Your task to perform on an android device: turn off improve location accuracy Image 0: 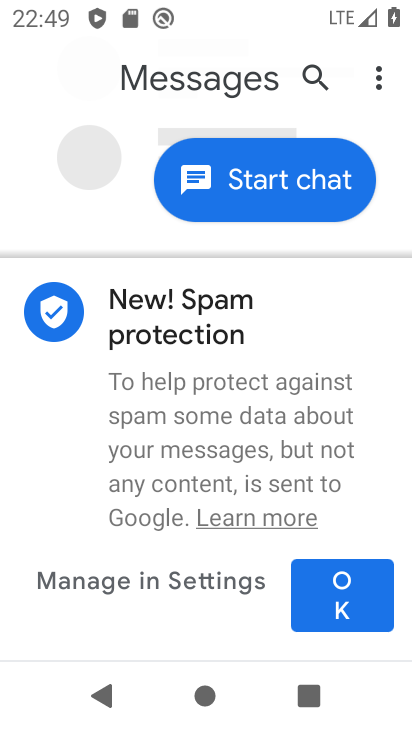
Step 0: press home button
Your task to perform on an android device: turn off improve location accuracy Image 1: 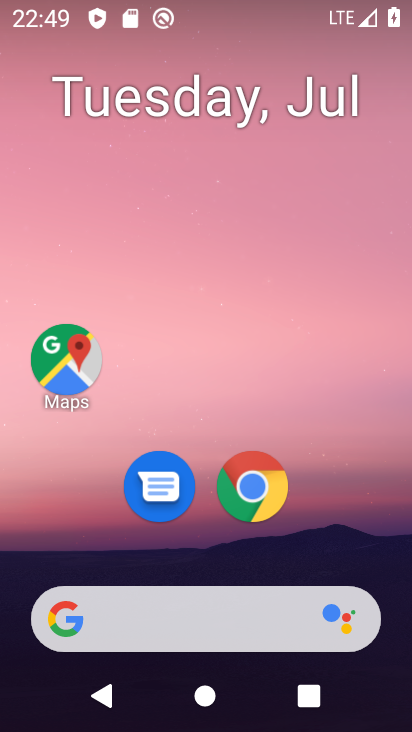
Step 1: drag from (346, 535) to (355, 177)
Your task to perform on an android device: turn off improve location accuracy Image 2: 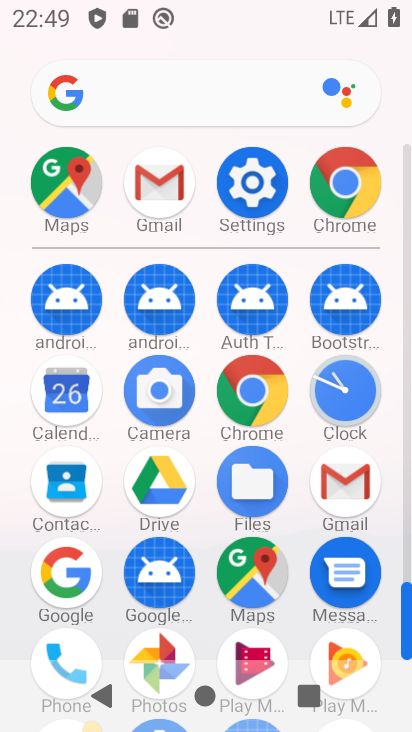
Step 2: click (255, 199)
Your task to perform on an android device: turn off improve location accuracy Image 3: 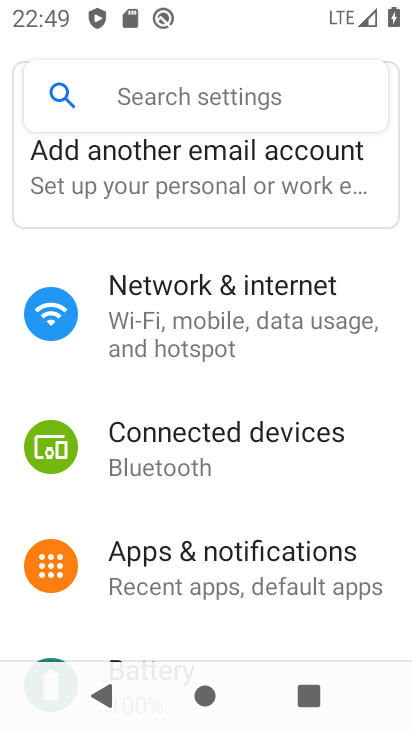
Step 3: drag from (334, 474) to (340, 362)
Your task to perform on an android device: turn off improve location accuracy Image 4: 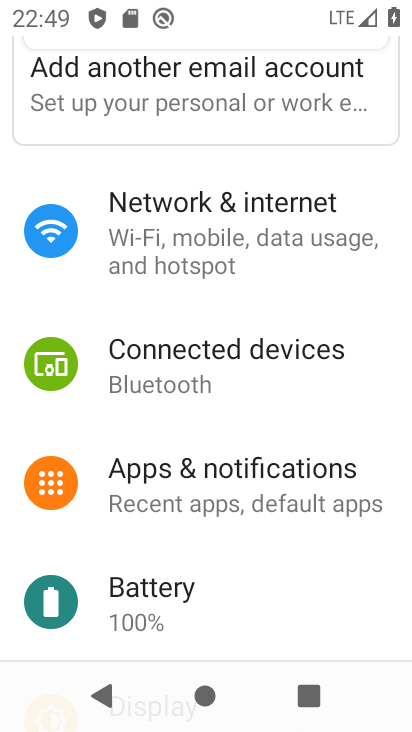
Step 4: drag from (329, 495) to (329, 353)
Your task to perform on an android device: turn off improve location accuracy Image 5: 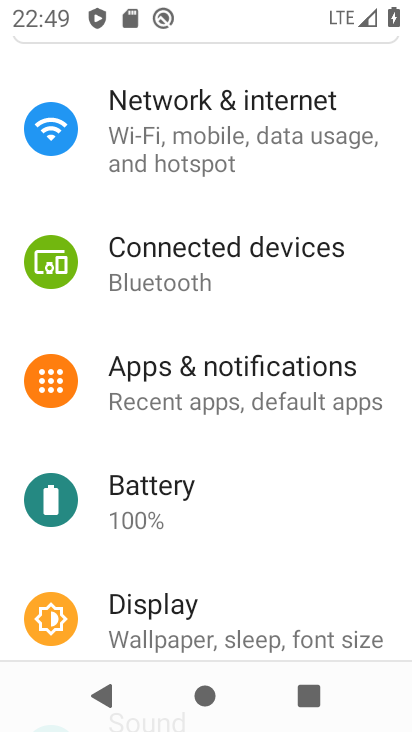
Step 5: drag from (321, 543) to (313, 389)
Your task to perform on an android device: turn off improve location accuracy Image 6: 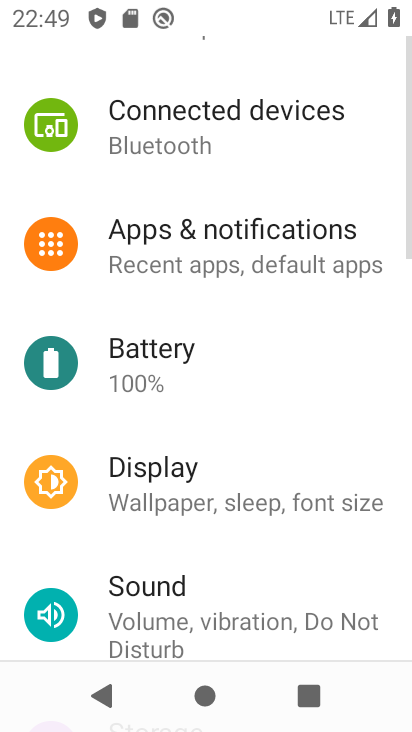
Step 6: drag from (301, 565) to (300, 236)
Your task to perform on an android device: turn off improve location accuracy Image 7: 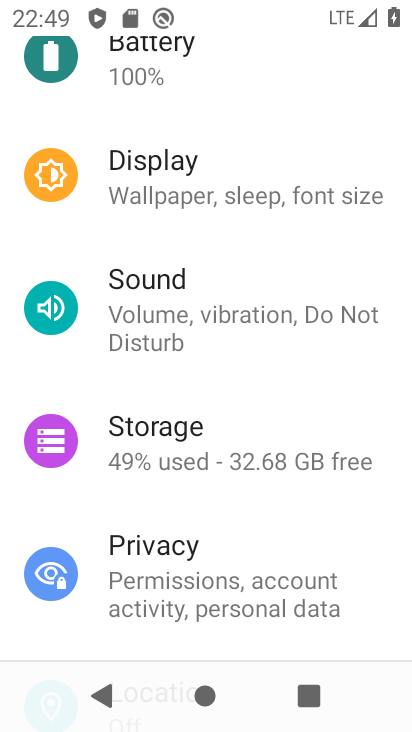
Step 7: drag from (283, 527) to (281, 354)
Your task to perform on an android device: turn off improve location accuracy Image 8: 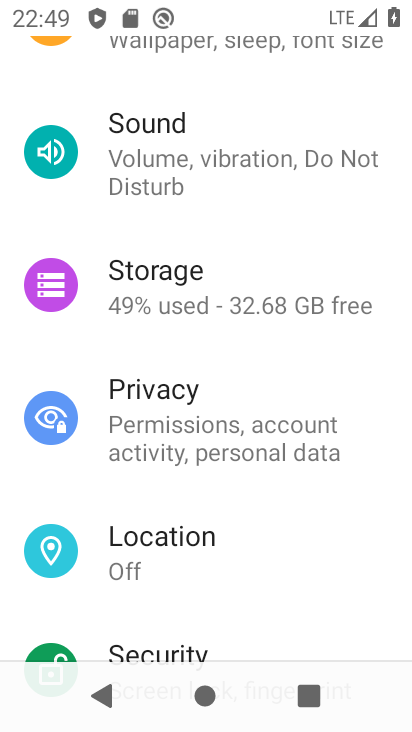
Step 8: click (244, 571)
Your task to perform on an android device: turn off improve location accuracy Image 9: 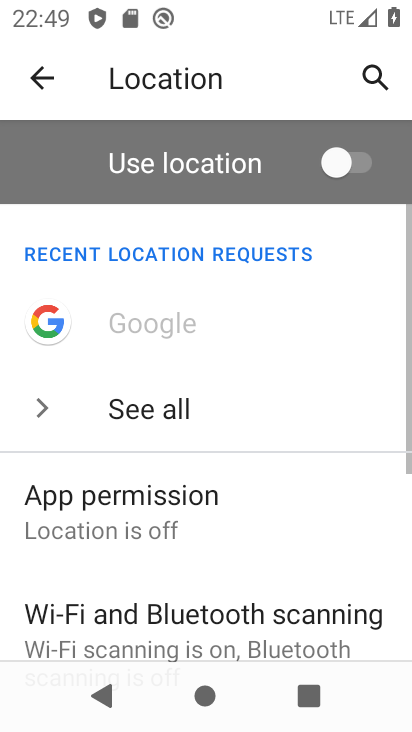
Step 9: drag from (244, 571) to (240, 487)
Your task to perform on an android device: turn off improve location accuracy Image 10: 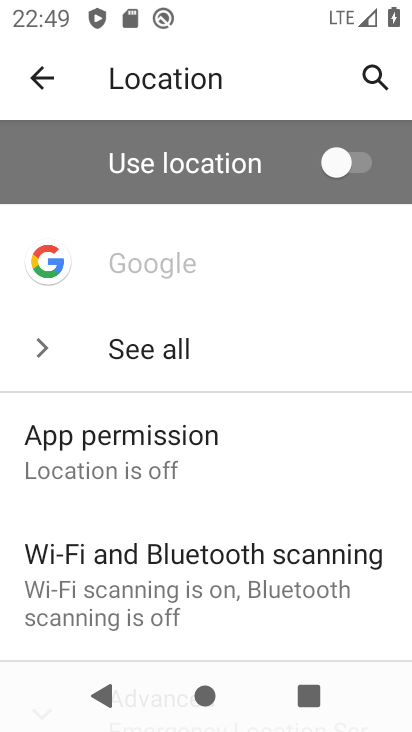
Step 10: drag from (240, 583) to (238, 517)
Your task to perform on an android device: turn off improve location accuracy Image 11: 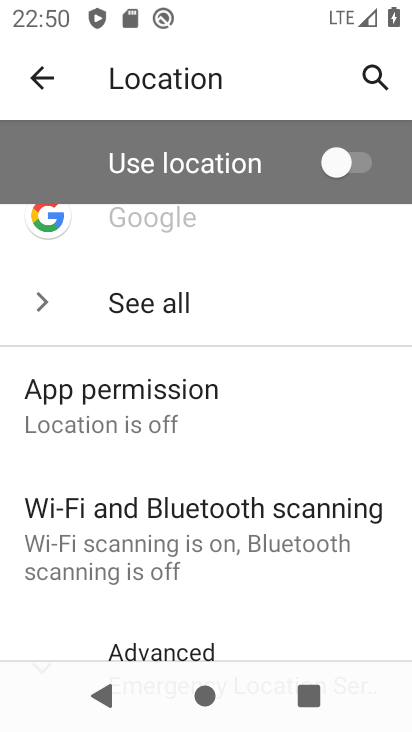
Step 11: drag from (251, 599) to (251, 490)
Your task to perform on an android device: turn off improve location accuracy Image 12: 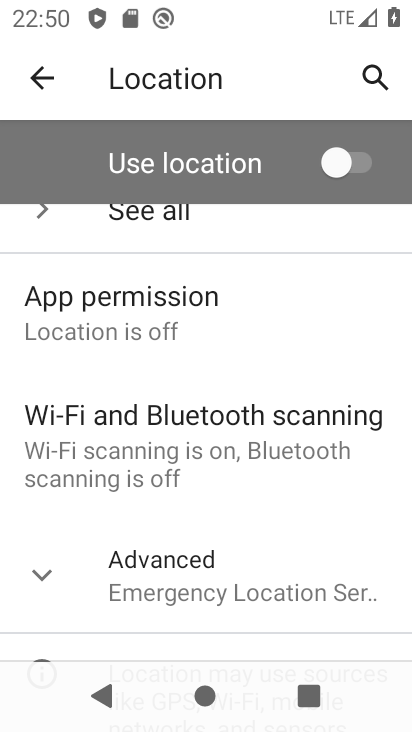
Step 12: drag from (252, 576) to (258, 428)
Your task to perform on an android device: turn off improve location accuracy Image 13: 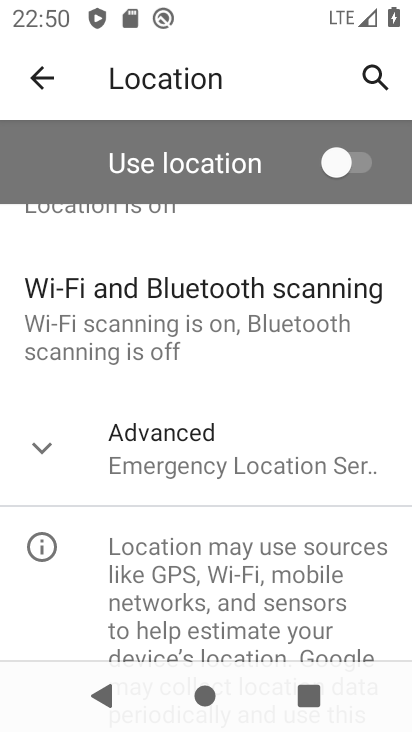
Step 13: click (258, 428)
Your task to perform on an android device: turn off improve location accuracy Image 14: 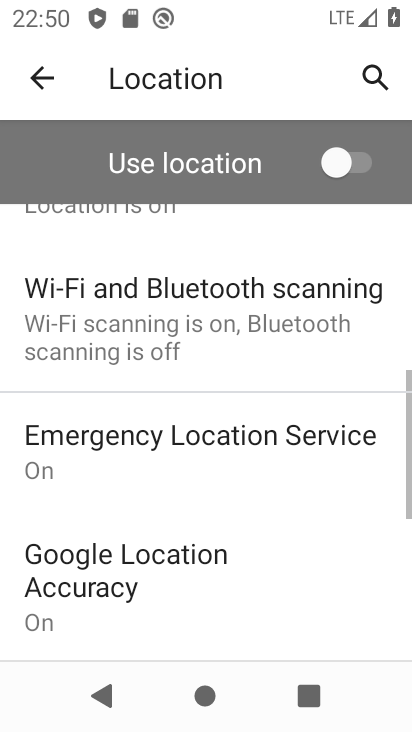
Step 14: drag from (256, 517) to (261, 471)
Your task to perform on an android device: turn off improve location accuracy Image 15: 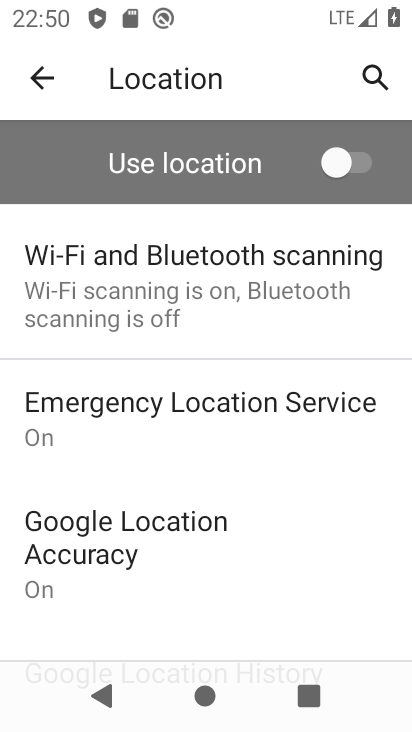
Step 15: drag from (269, 542) to (273, 478)
Your task to perform on an android device: turn off improve location accuracy Image 16: 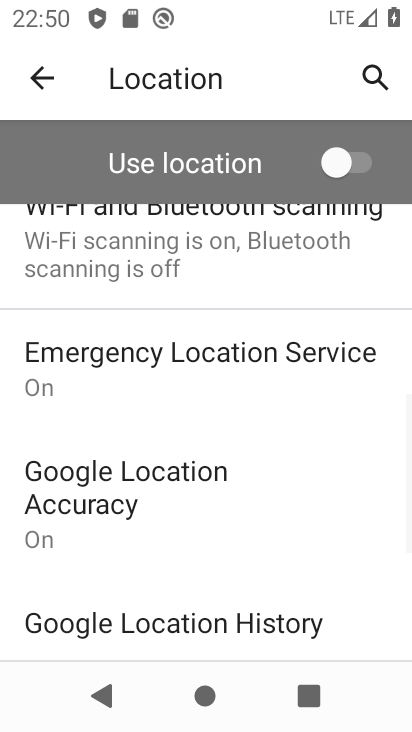
Step 16: drag from (272, 560) to (272, 460)
Your task to perform on an android device: turn off improve location accuracy Image 17: 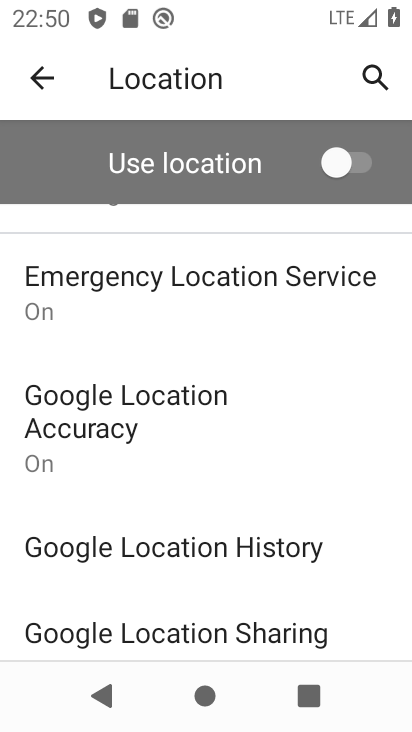
Step 17: click (271, 443)
Your task to perform on an android device: turn off improve location accuracy Image 18: 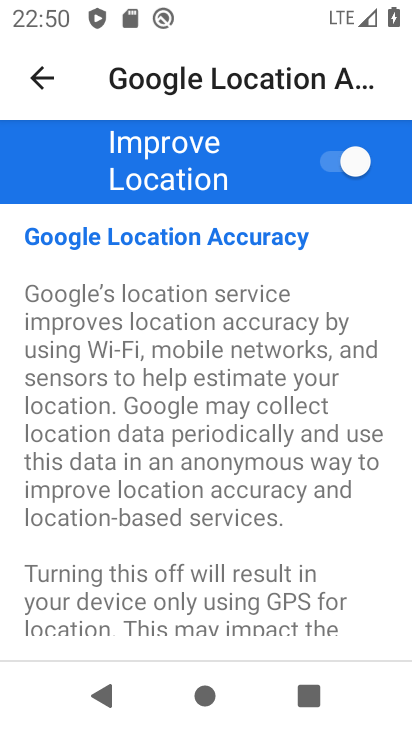
Step 18: click (352, 165)
Your task to perform on an android device: turn off improve location accuracy Image 19: 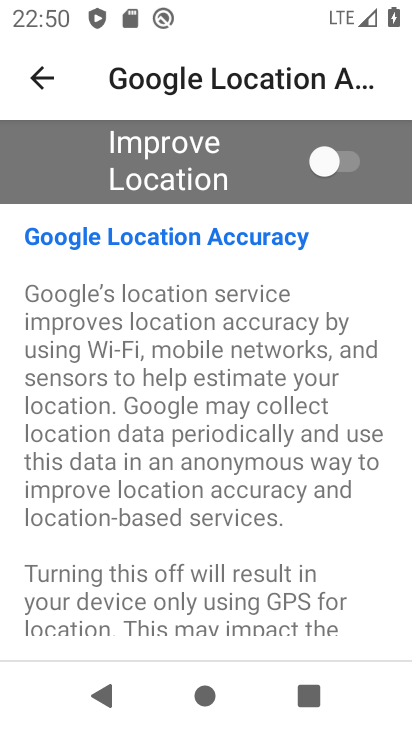
Step 19: task complete